Your task to perform on an android device: change the clock style Image 0: 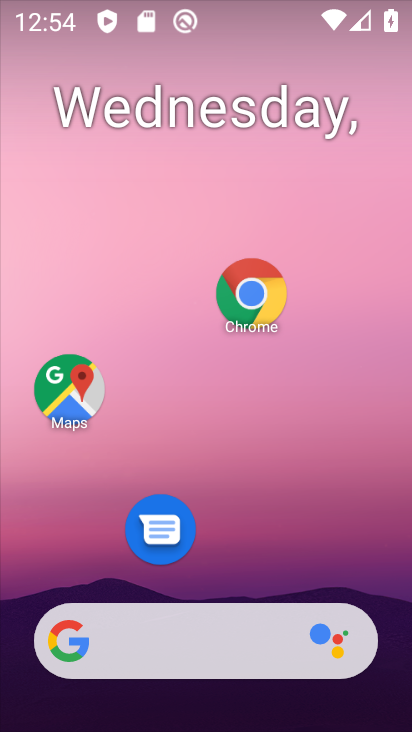
Step 0: drag from (267, 527) to (266, 172)
Your task to perform on an android device: change the clock style Image 1: 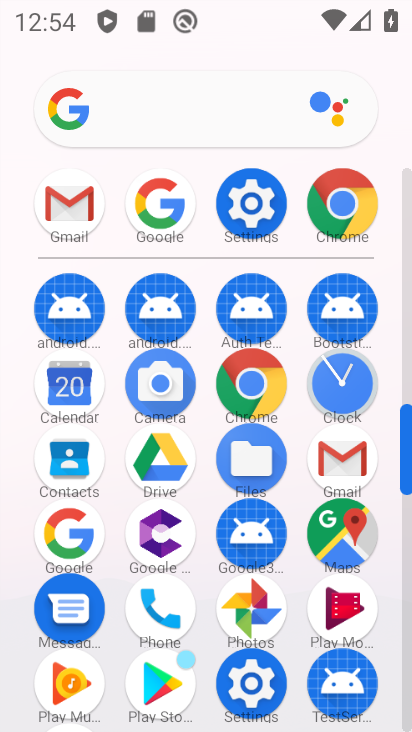
Step 1: click (324, 385)
Your task to perform on an android device: change the clock style Image 2: 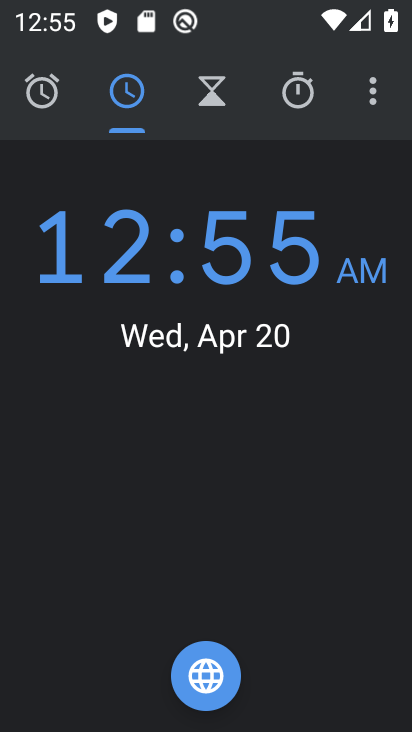
Step 2: click (367, 101)
Your task to perform on an android device: change the clock style Image 3: 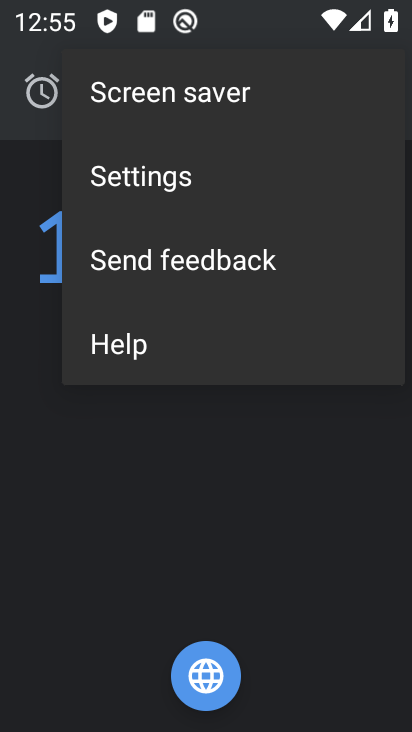
Step 3: click (205, 189)
Your task to perform on an android device: change the clock style Image 4: 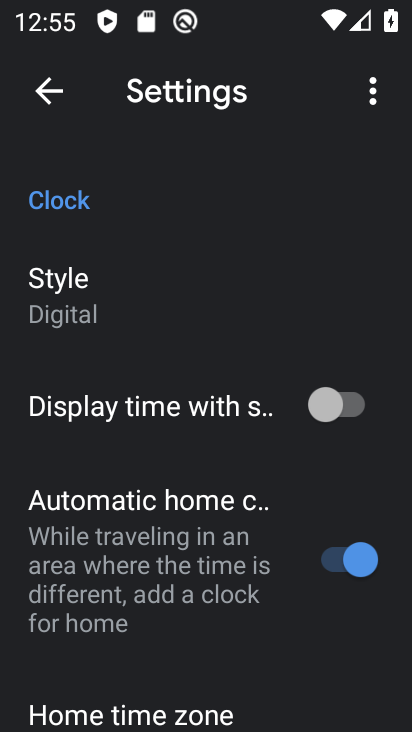
Step 4: click (186, 324)
Your task to perform on an android device: change the clock style Image 5: 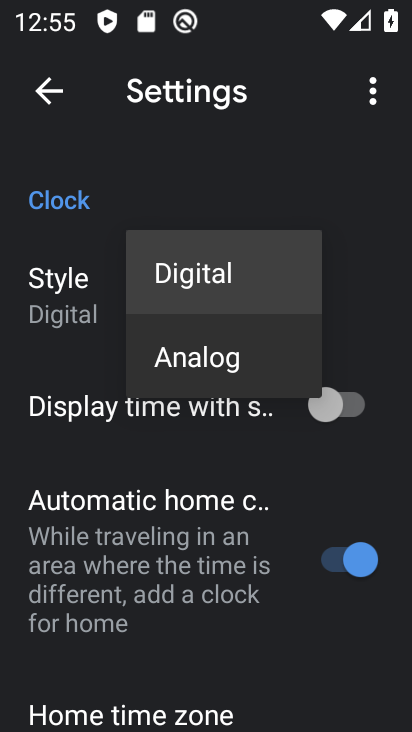
Step 5: click (180, 362)
Your task to perform on an android device: change the clock style Image 6: 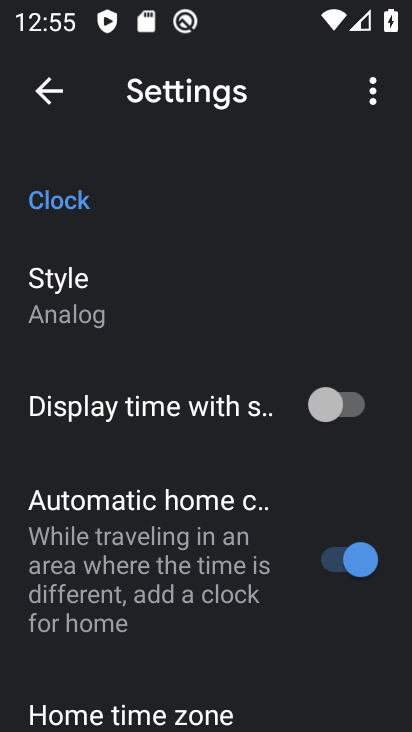
Step 6: task complete